Your task to perform on an android device: Go to Android settings Image 0: 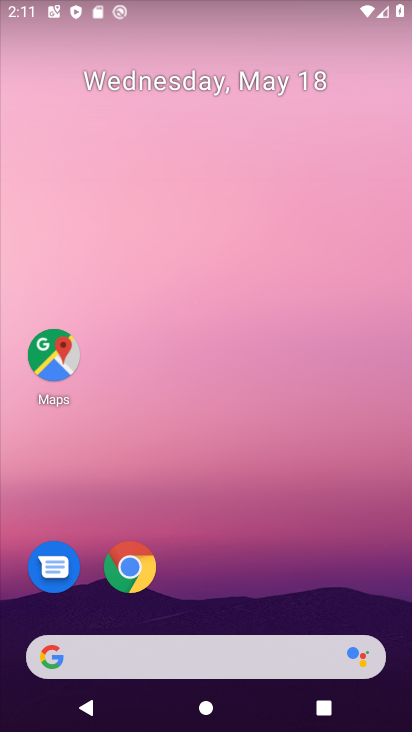
Step 0: drag from (242, 565) to (208, 62)
Your task to perform on an android device: Go to Android settings Image 1: 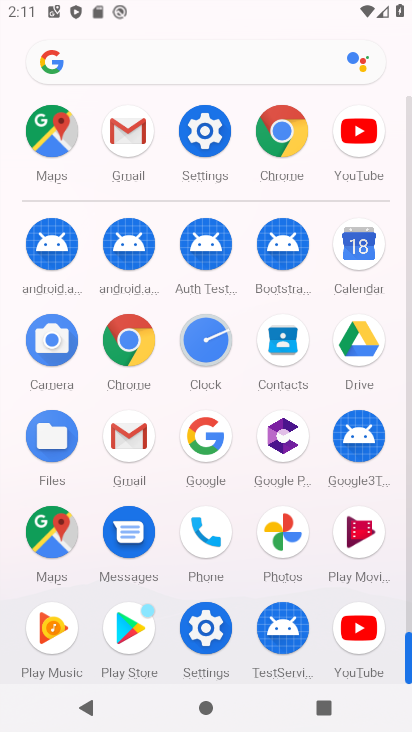
Step 1: click (211, 130)
Your task to perform on an android device: Go to Android settings Image 2: 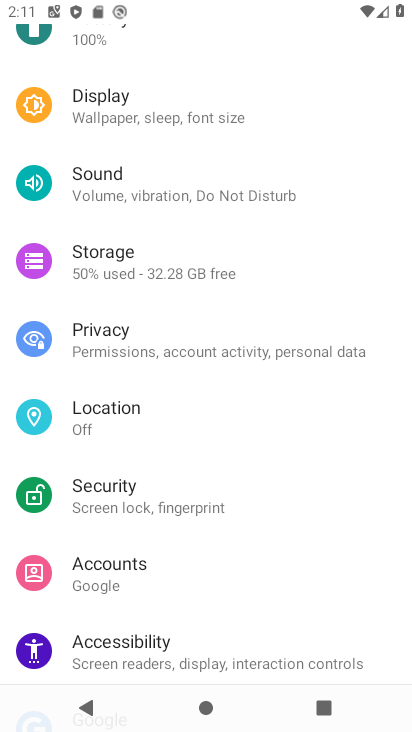
Step 2: task complete